Your task to perform on an android device: What's on my calendar today? Image 0: 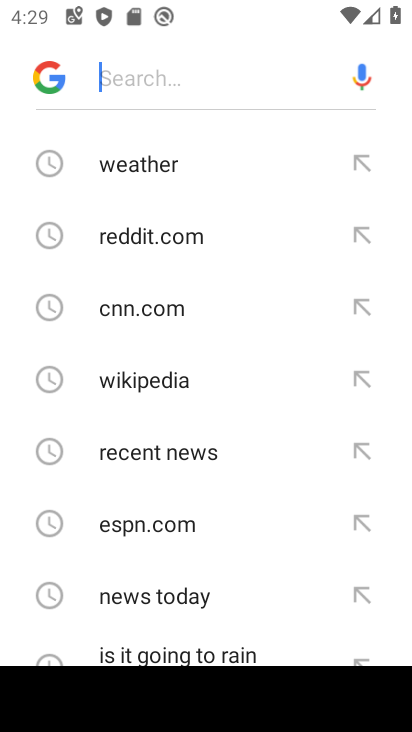
Step 0: press home button
Your task to perform on an android device: What's on my calendar today? Image 1: 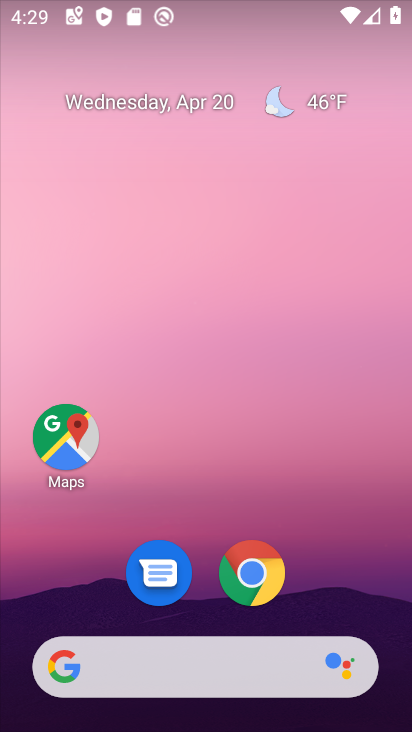
Step 1: click (328, 171)
Your task to perform on an android device: What's on my calendar today? Image 2: 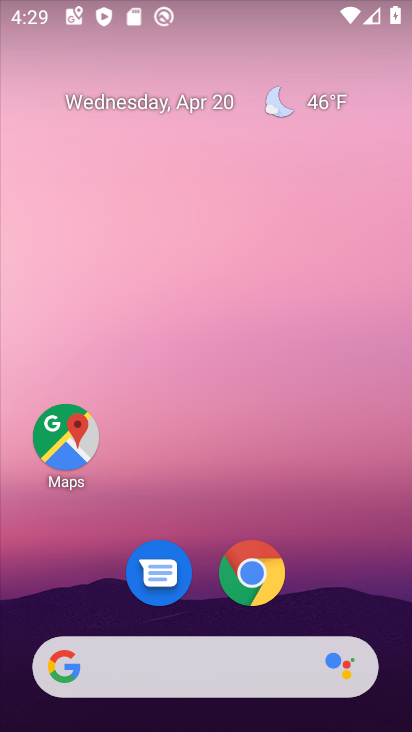
Step 2: drag from (360, 548) to (314, 113)
Your task to perform on an android device: What's on my calendar today? Image 3: 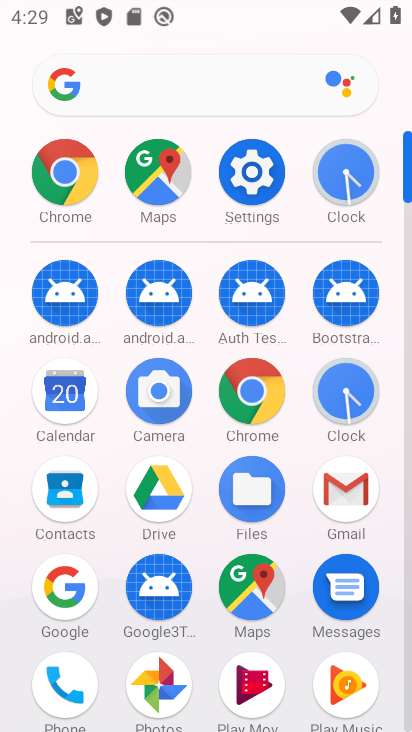
Step 3: click (77, 390)
Your task to perform on an android device: What's on my calendar today? Image 4: 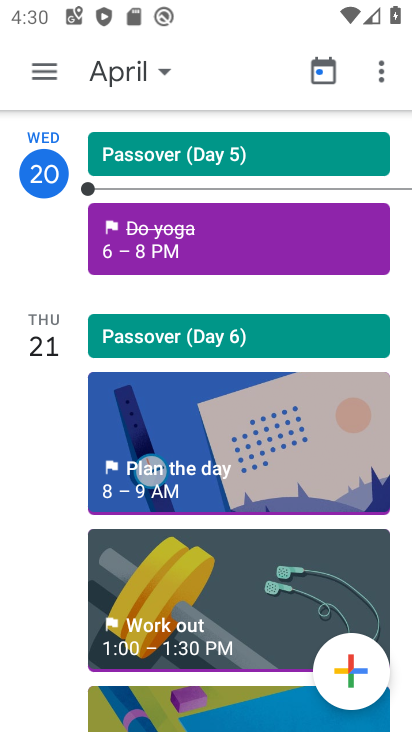
Step 4: click (162, 68)
Your task to perform on an android device: What's on my calendar today? Image 5: 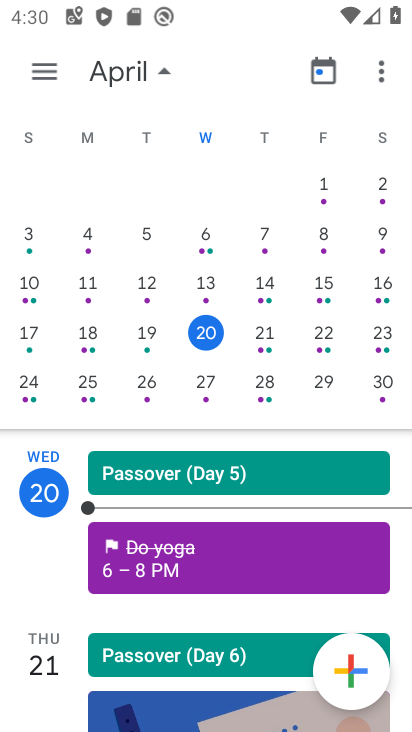
Step 5: click (200, 324)
Your task to perform on an android device: What's on my calendar today? Image 6: 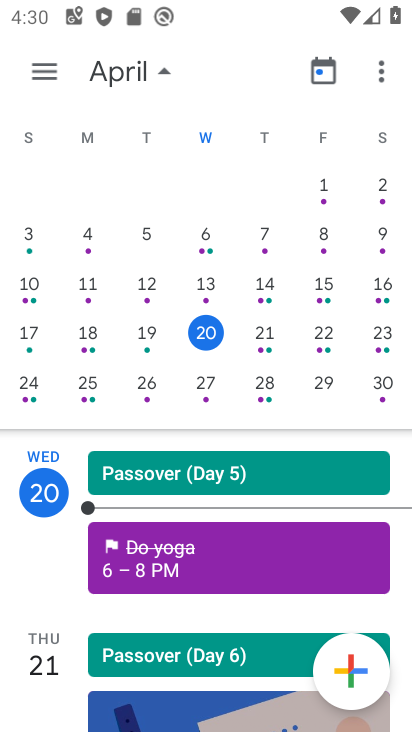
Step 6: click (209, 334)
Your task to perform on an android device: What's on my calendar today? Image 7: 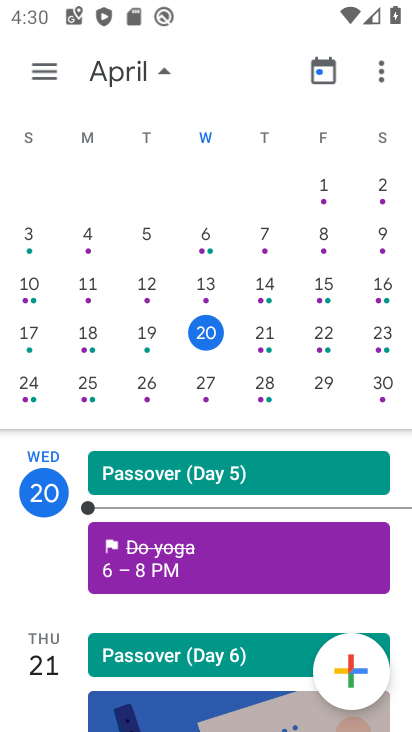
Step 7: task complete